Your task to perform on an android device: toggle data saver in the chrome app Image 0: 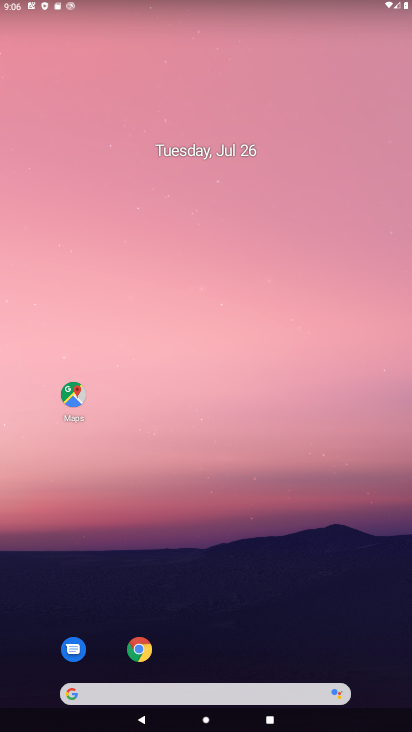
Step 0: drag from (208, 525) to (285, 141)
Your task to perform on an android device: toggle data saver in the chrome app Image 1: 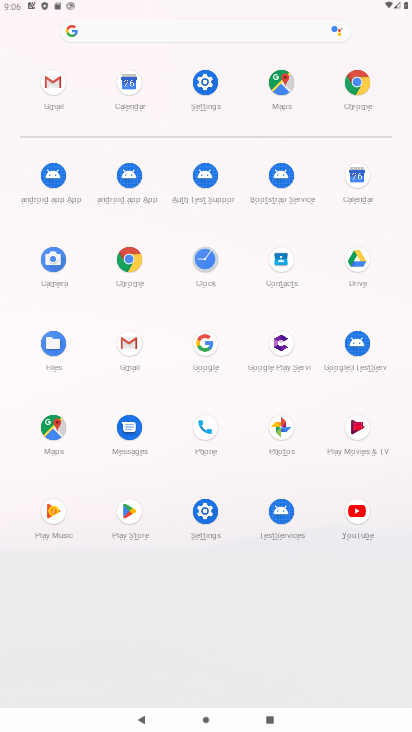
Step 1: click (130, 266)
Your task to perform on an android device: toggle data saver in the chrome app Image 2: 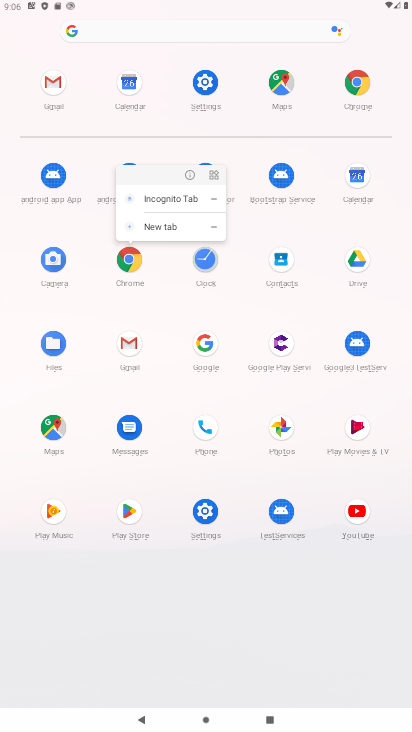
Step 2: click (200, 519)
Your task to perform on an android device: toggle data saver in the chrome app Image 3: 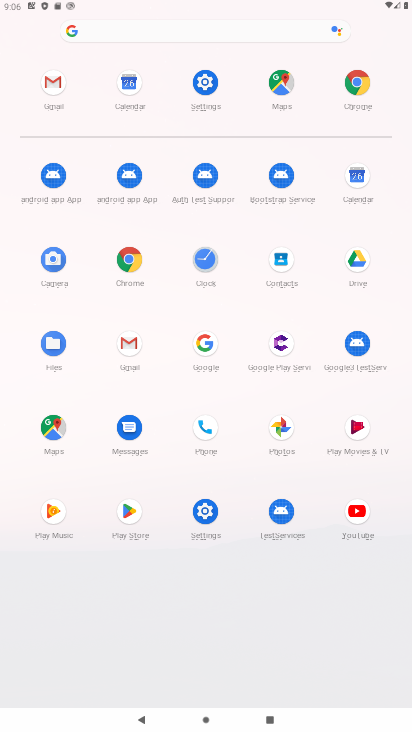
Step 3: click (129, 260)
Your task to perform on an android device: toggle data saver in the chrome app Image 4: 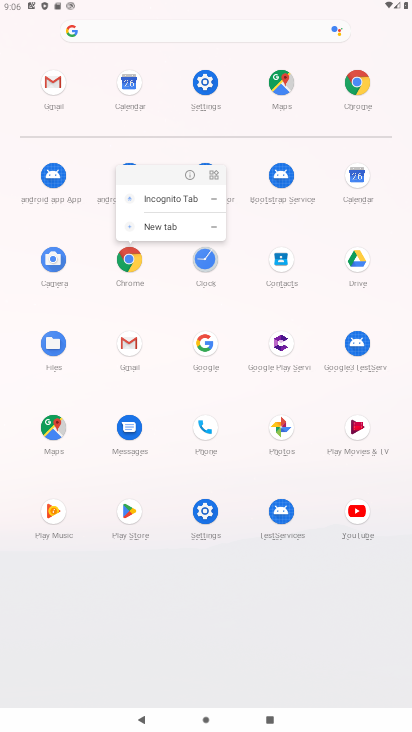
Step 4: click (194, 173)
Your task to perform on an android device: toggle data saver in the chrome app Image 5: 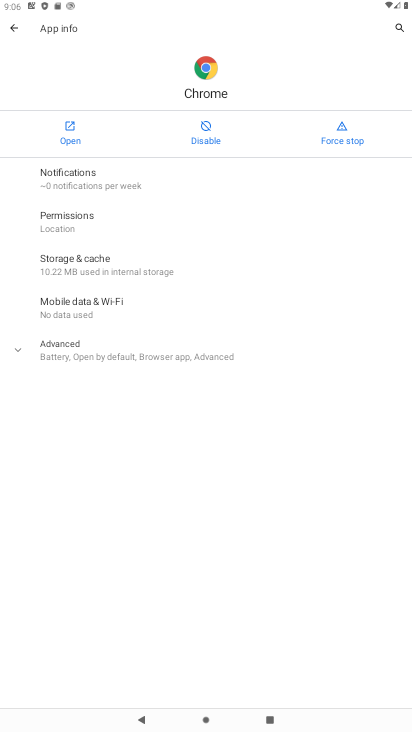
Step 5: click (67, 129)
Your task to perform on an android device: toggle data saver in the chrome app Image 6: 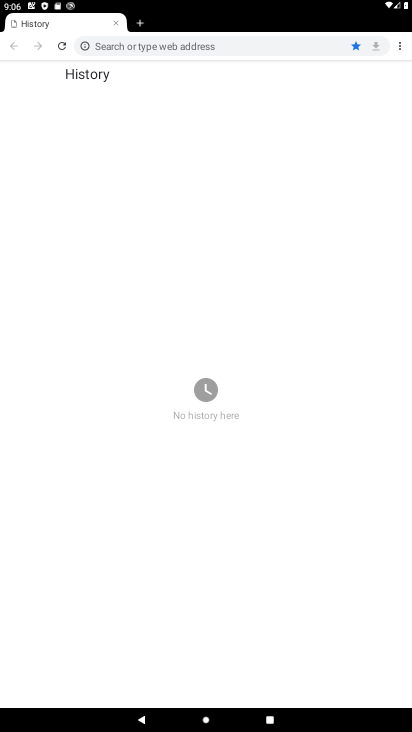
Step 6: drag from (188, 496) to (139, 51)
Your task to perform on an android device: toggle data saver in the chrome app Image 7: 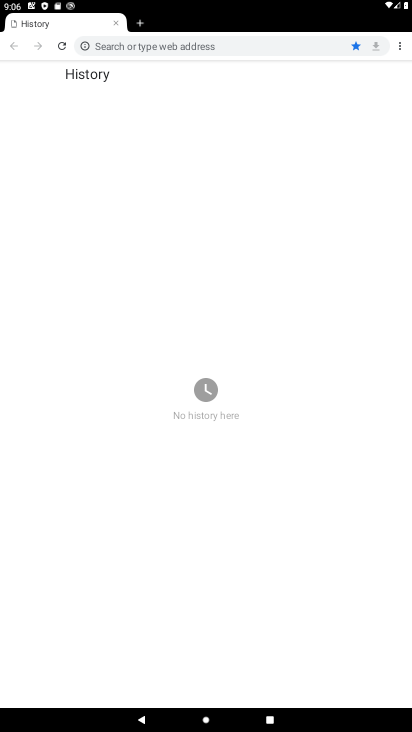
Step 7: drag from (399, 42) to (338, 215)
Your task to perform on an android device: toggle data saver in the chrome app Image 8: 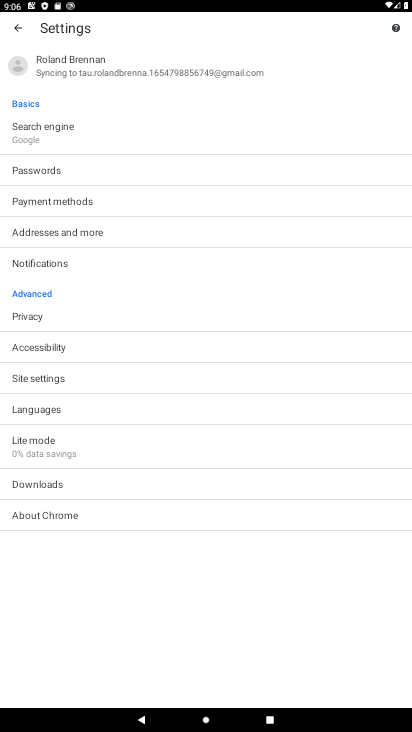
Step 8: click (81, 437)
Your task to perform on an android device: toggle data saver in the chrome app Image 9: 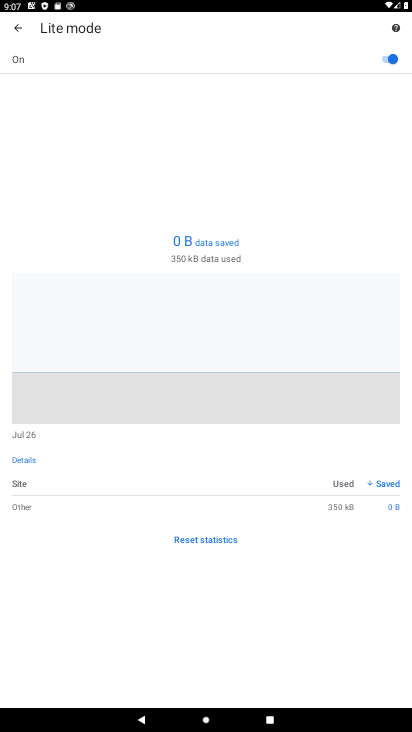
Step 9: click (389, 61)
Your task to perform on an android device: toggle data saver in the chrome app Image 10: 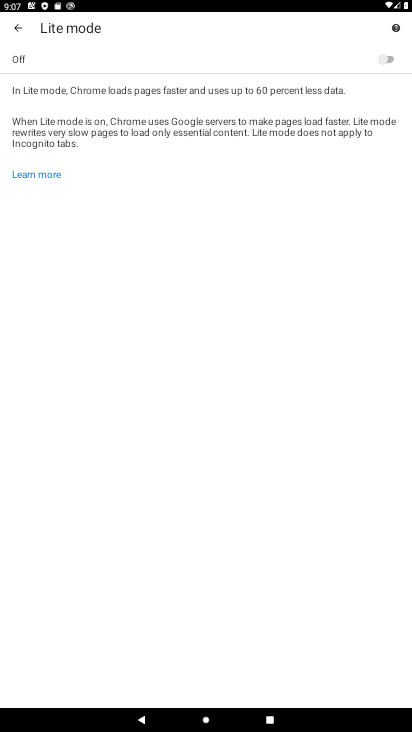
Step 10: task complete